Your task to perform on an android device: toggle show notifications on the lock screen Image 0: 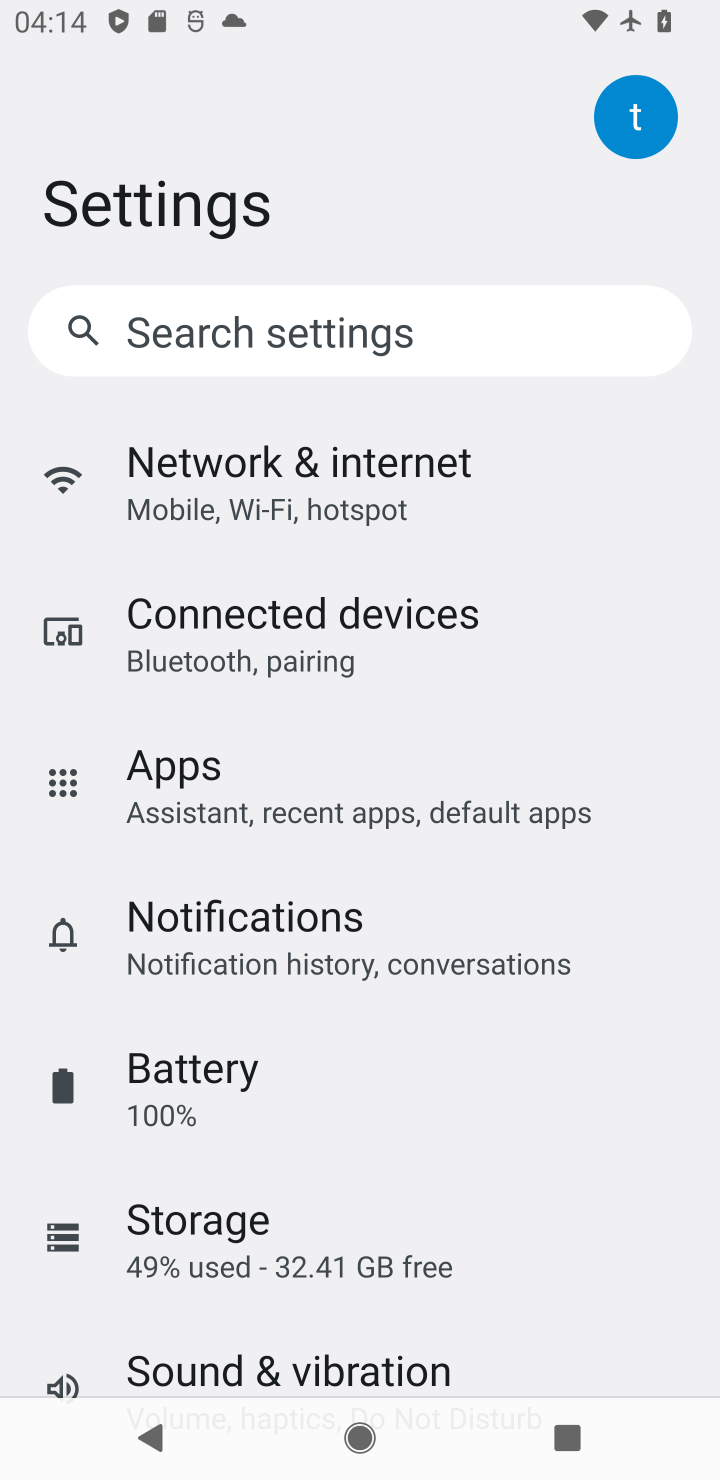
Step 0: click (292, 944)
Your task to perform on an android device: toggle show notifications on the lock screen Image 1: 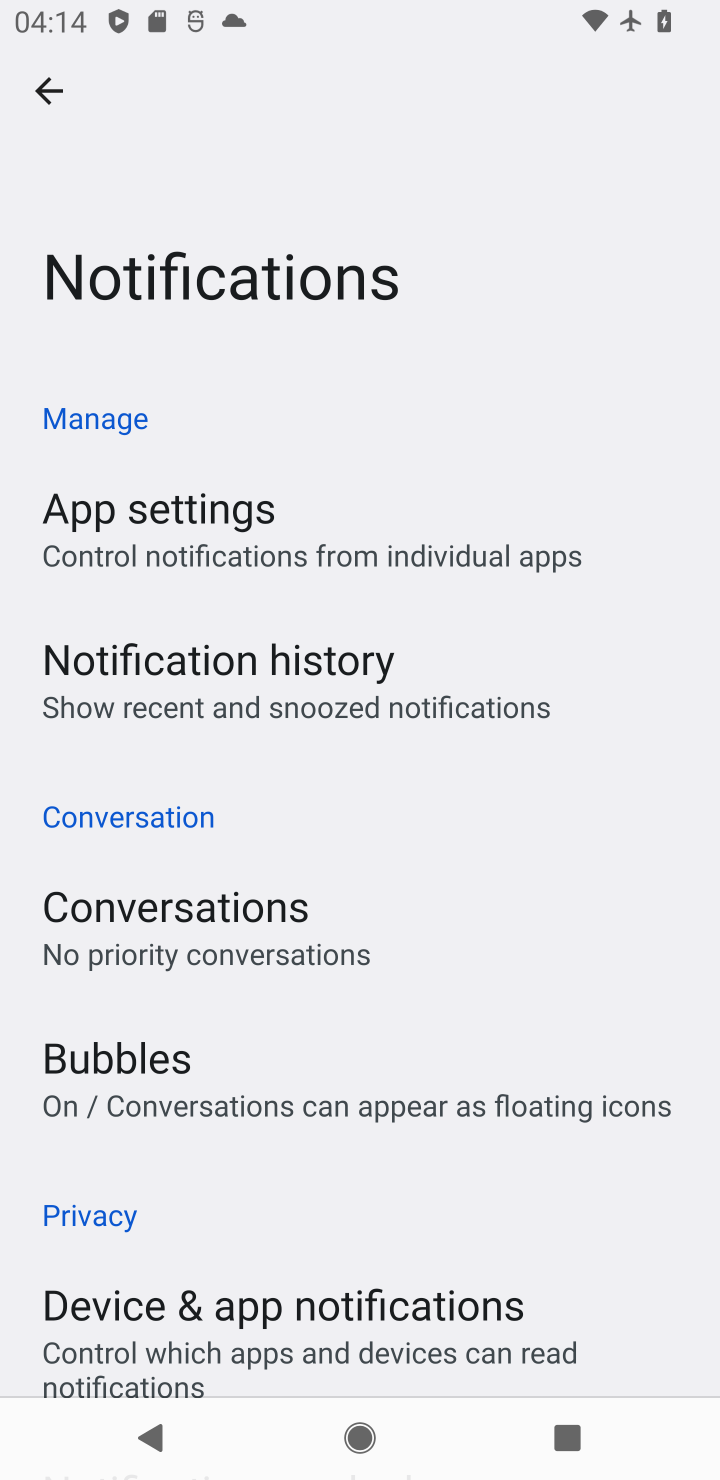
Step 1: drag from (450, 1202) to (495, 580)
Your task to perform on an android device: toggle show notifications on the lock screen Image 2: 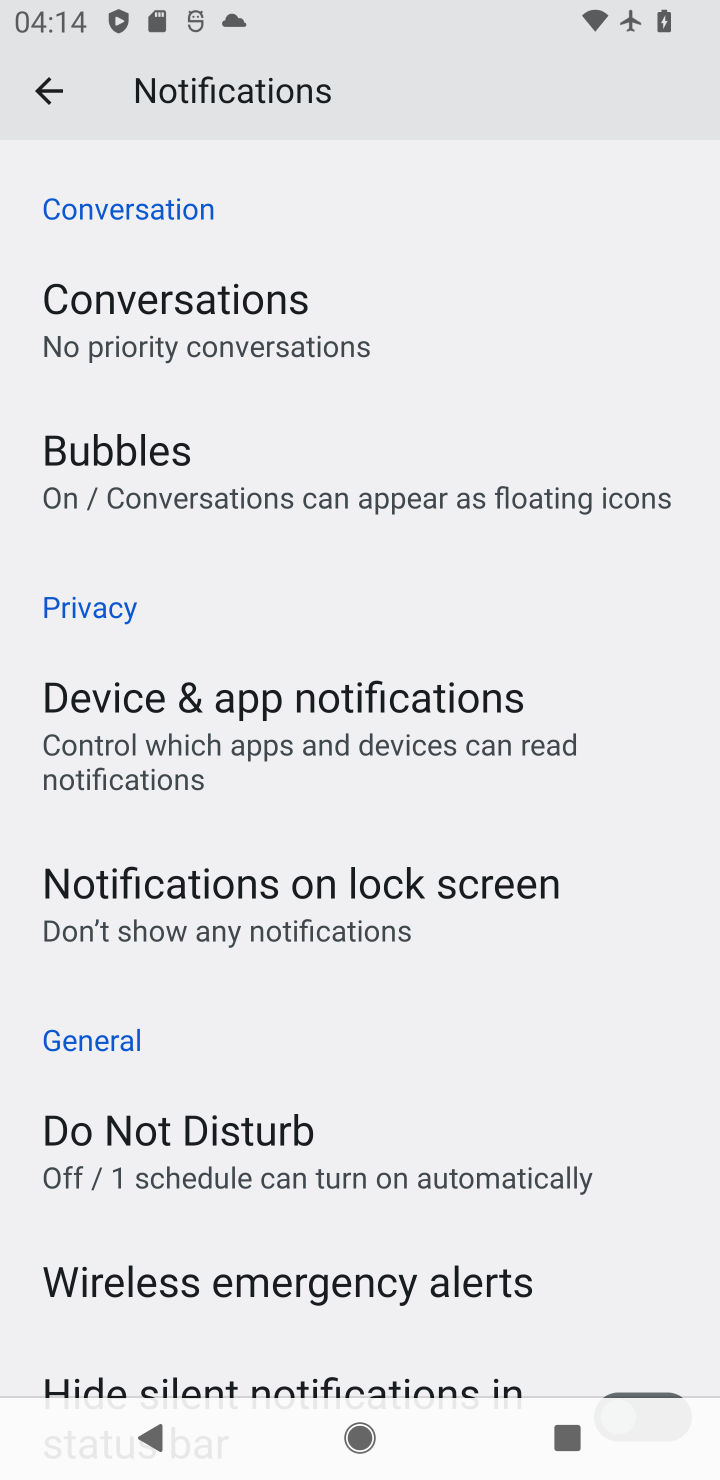
Step 2: drag from (447, 1288) to (464, 917)
Your task to perform on an android device: toggle show notifications on the lock screen Image 3: 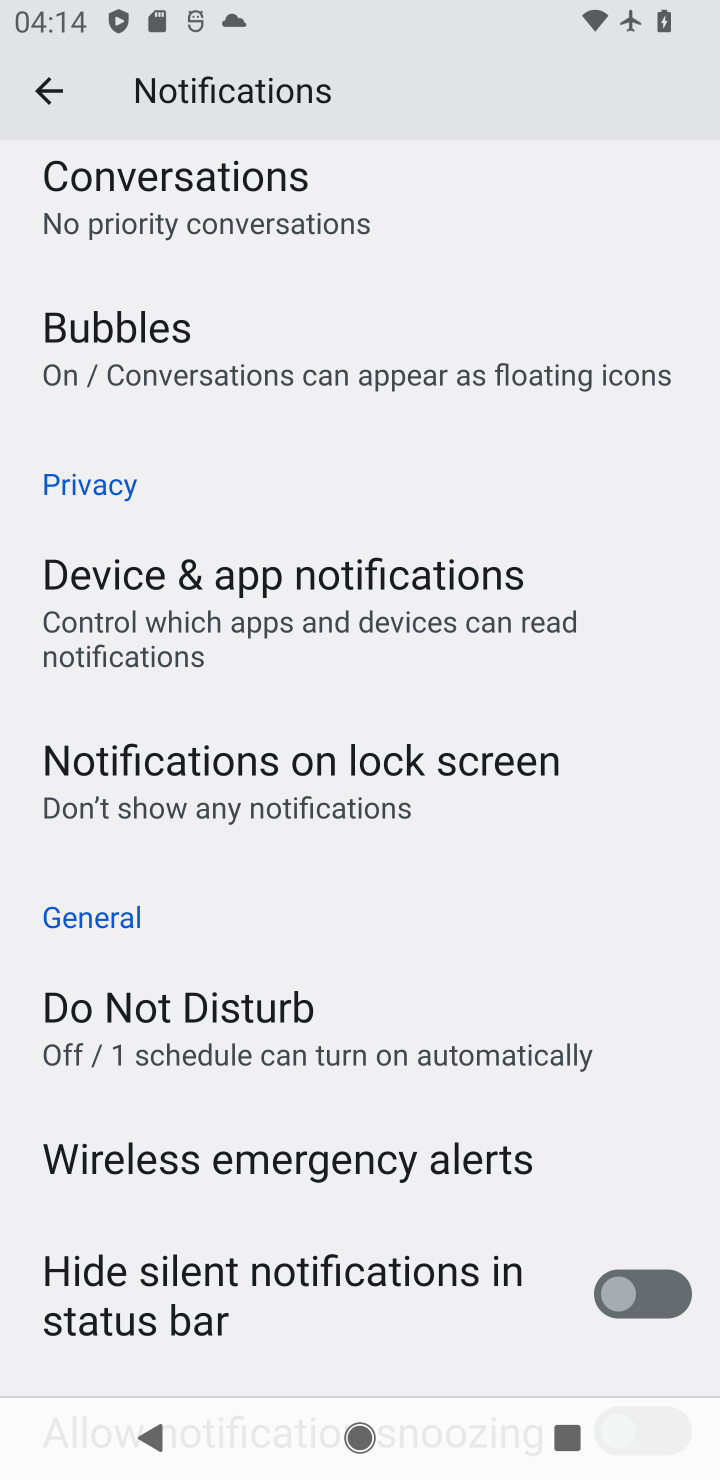
Step 3: click (427, 803)
Your task to perform on an android device: toggle show notifications on the lock screen Image 4: 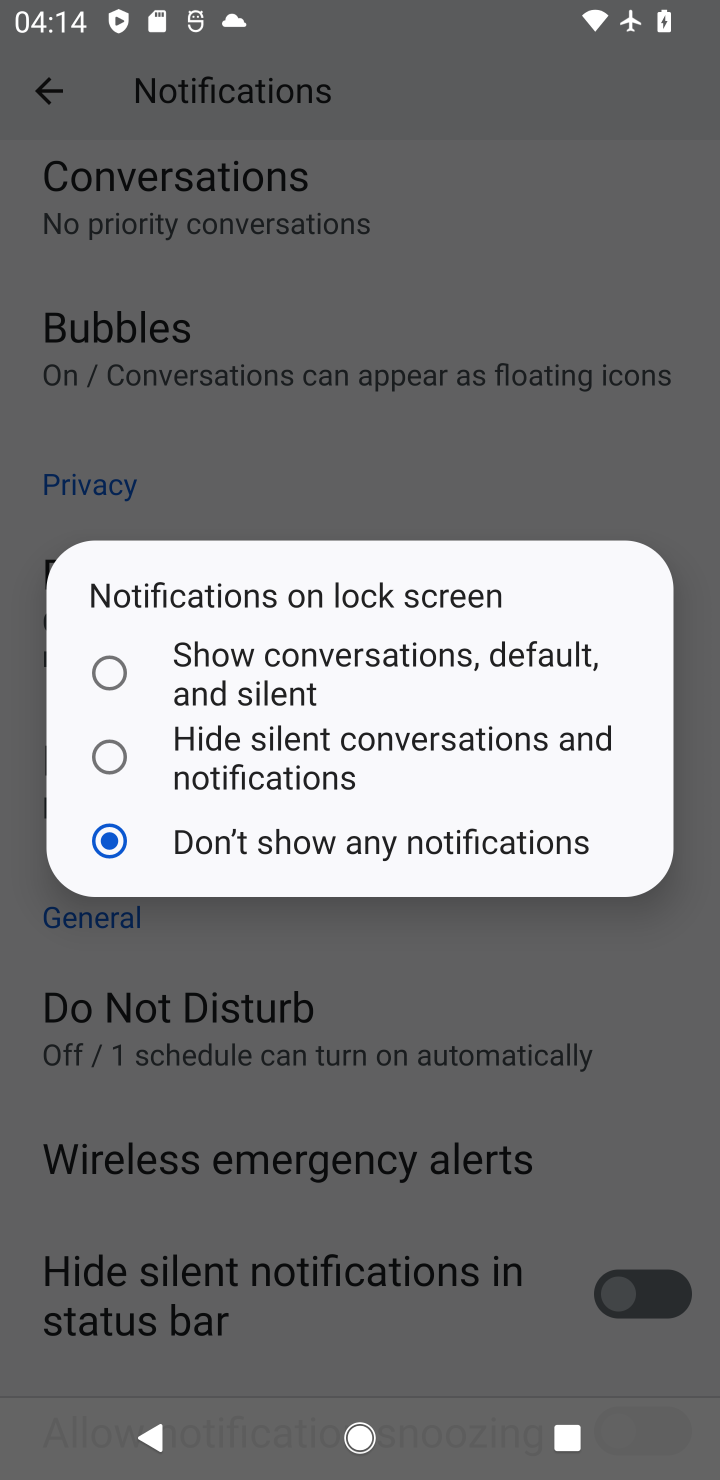
Step 4: click (345, 658)
Your task to perform on an android device: toggle show notifications on the lock screen Image 5: 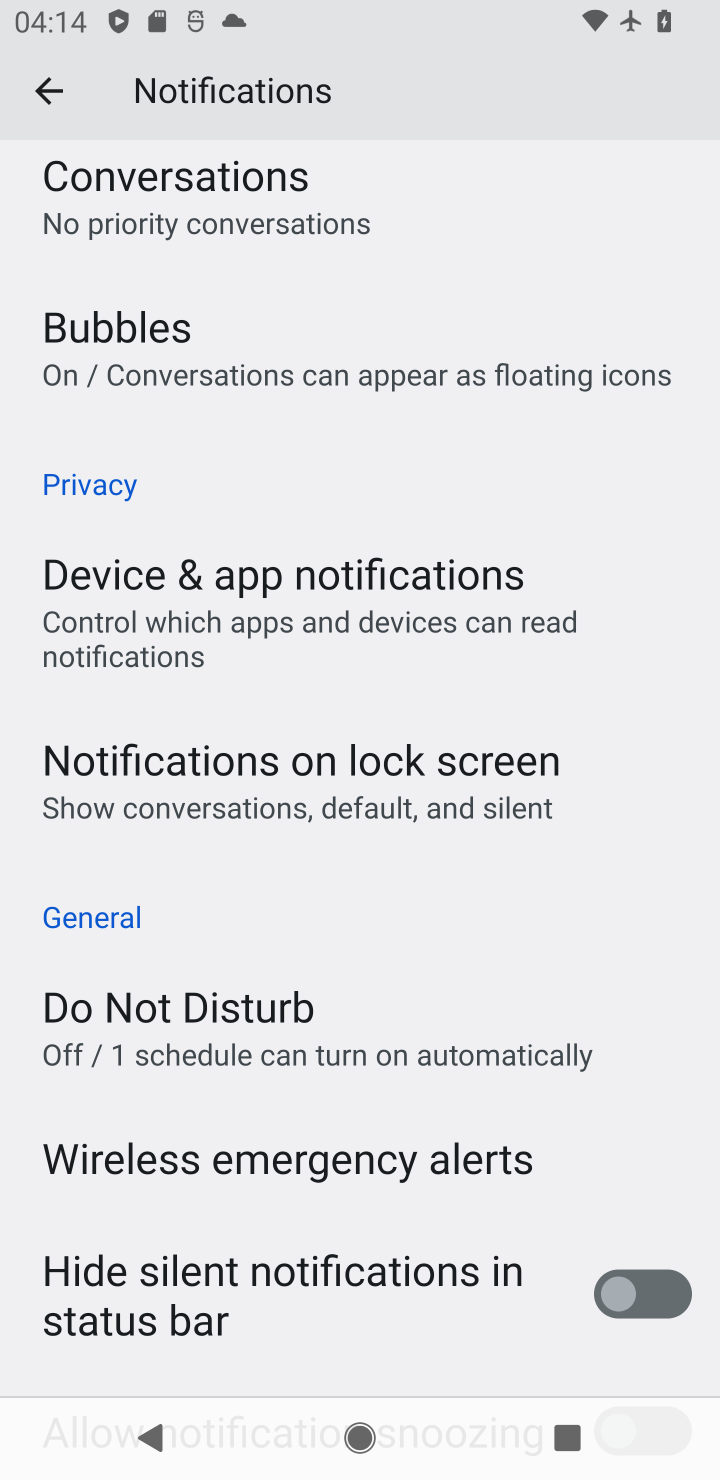
Step 5: task complete